Your task to perform on an android device: Show me productivity apps on the Play Store Image 0: 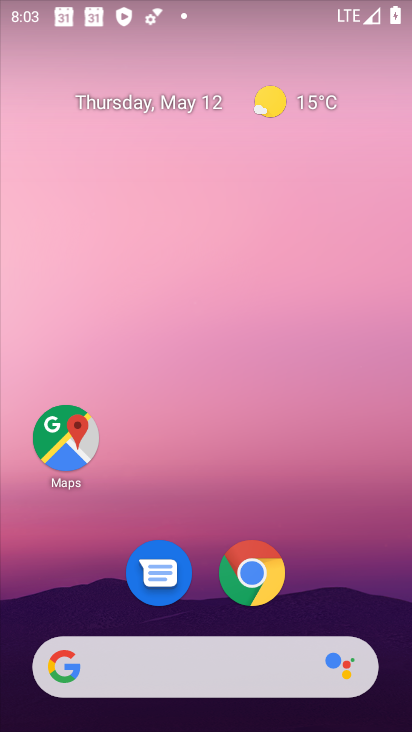
Step 0: drag from (336, 557) to (159, 30)
Your task to perform on an android device: Show me productivity apps on the Play Store Image 1: 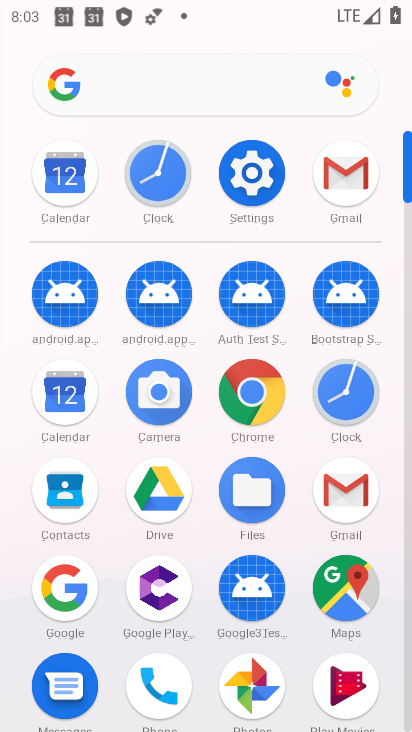
Step 1: drag from (195, 656) to (144, 239)
Your task to perform on an android device: Show me productivity apps on the Play Store Image 2: 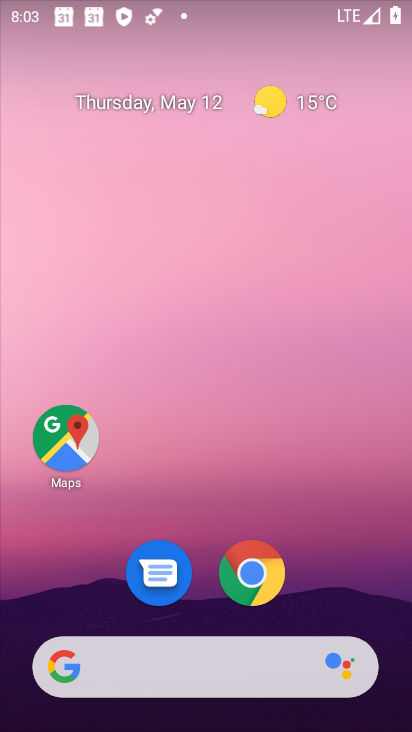
Step 2: drag from (191, 498) to (69, 30)
Your task to perform on an android device: Show me productivity apps on the Play Store Image 3: 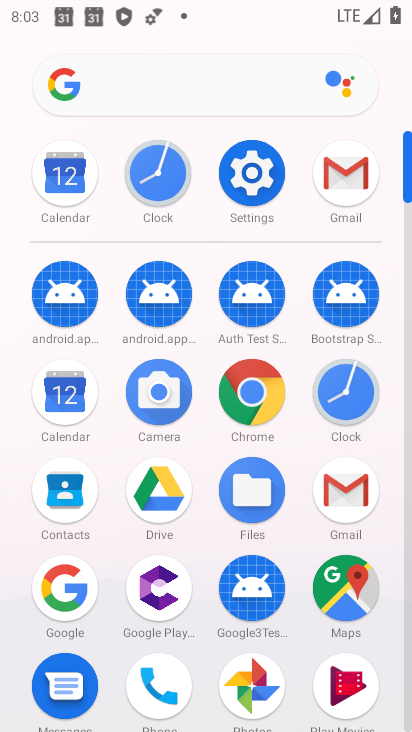
Step 3: drag from (210, 628) to (135, 201)
Your task to perform on an android device: Show me productivity apps on the Play Store Image 4: 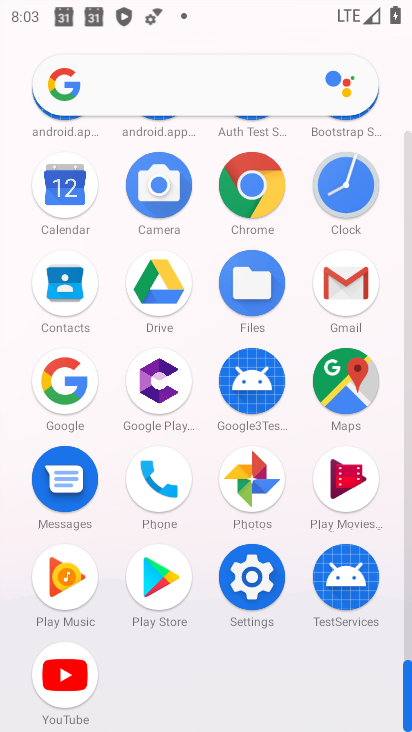
Step 4: click (161, 588)
Your task to perform on an android device: Show me productivity apps on the Play Store Image 5: 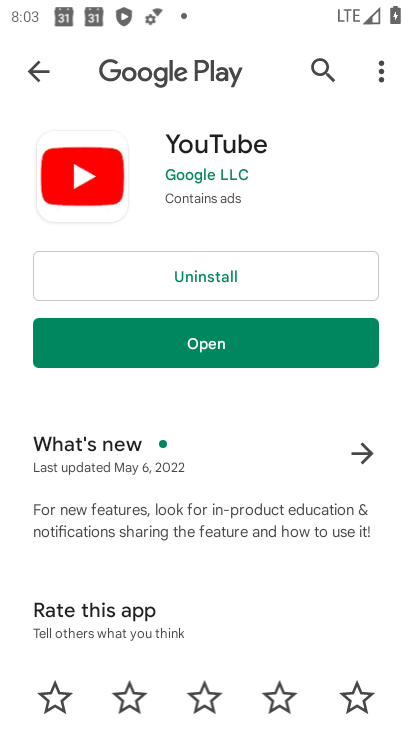
Step 5: click (40, 74)
Your task to perform on an android device: Show me productivity apps on the Play Store Image 6: 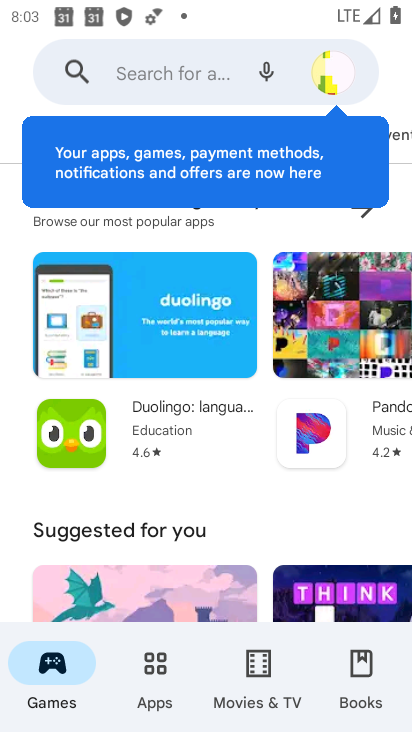
Step 6: click (150, 660)
Your task to perform on an android device: Show me productivity apps on the Play Store Image 7: 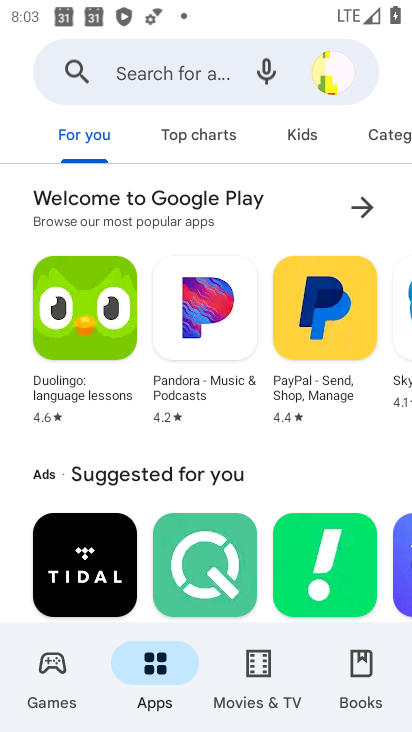
Step 7: task complete